Your task to perform on an android device: View the shopping cart on costco.com. Search for macbook on costco.com, select the first entry, and add it to the cart. Image 0: 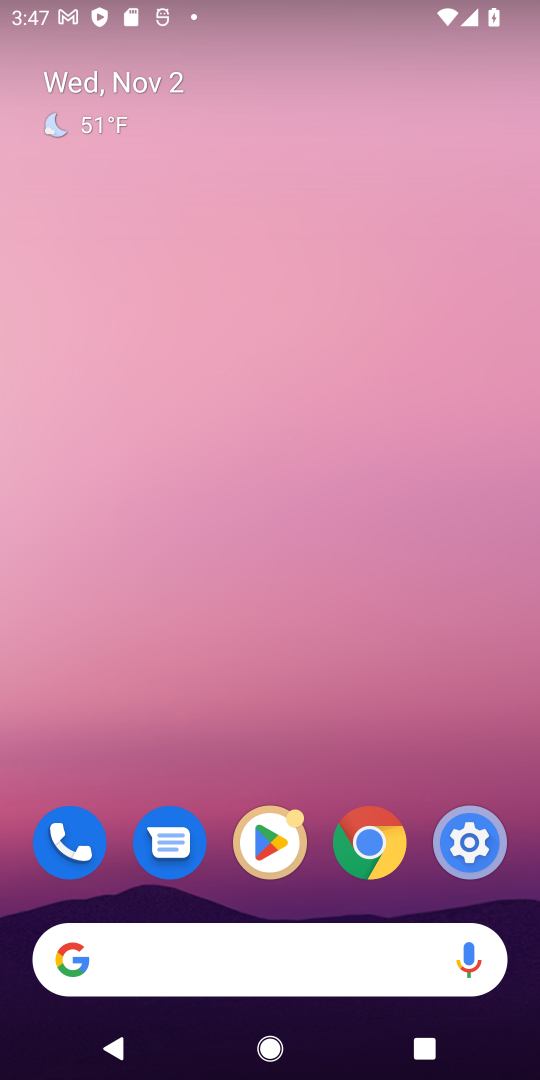
Step 0: click (261, 951)
Your task to perform on an android device: View the shopping cart on costco.com. Search for macbook on costco.com, select the first entry, and add it to the cart. Image 1: 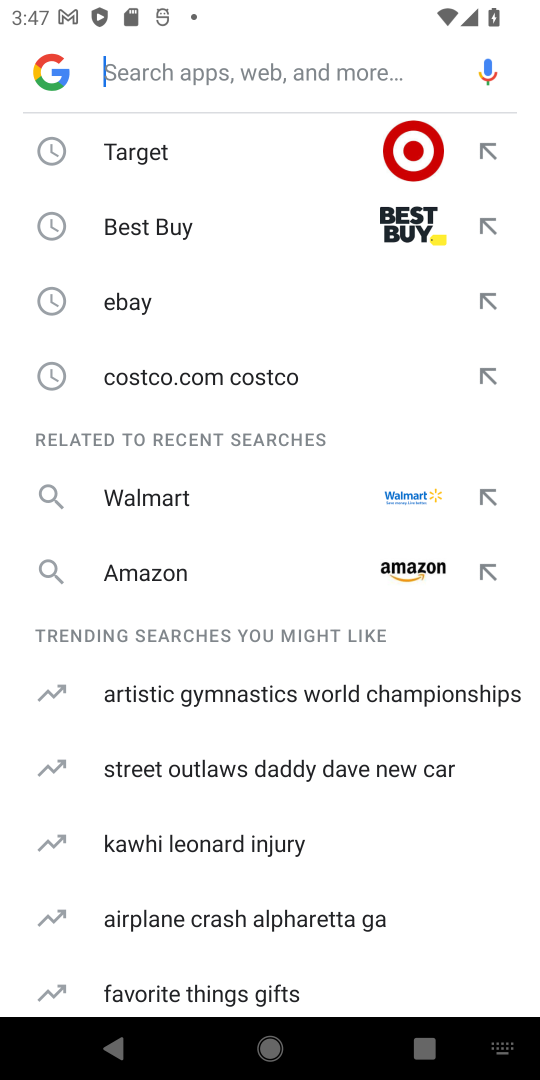
Step 1: click (227, 374)
Your task to perform on an android device: View the shopping cart on costco.com. Search for macbook on costco.com, select the first entry, and add it to the cart. Image 2: 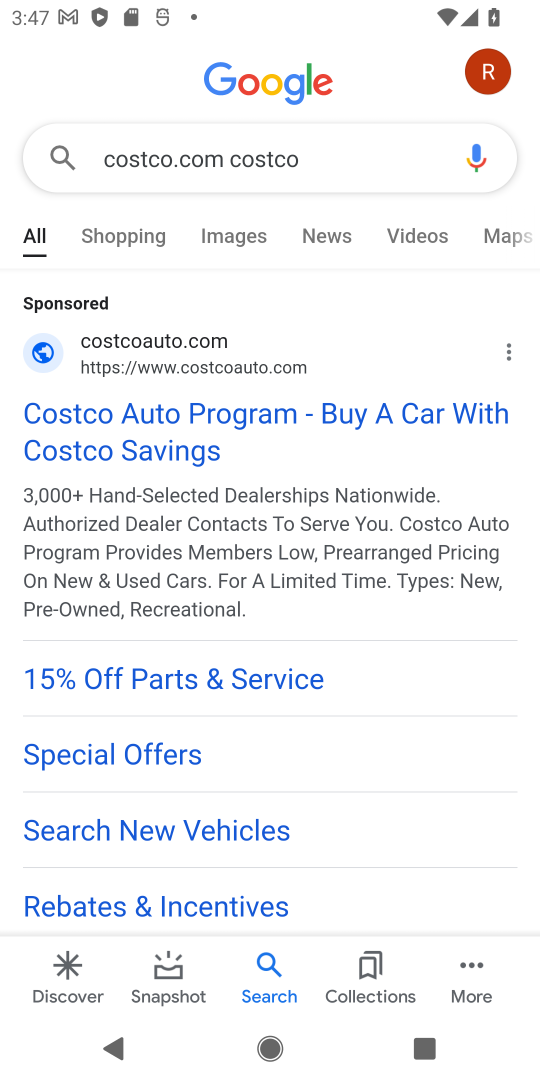
Step 2: drag from (329, 854) to (261, 399)
Your task to perform on an android device: View the shopping cart on costco.com. Search for macbook on costco.com, select the first entry, and add it to the cart. Image 3: 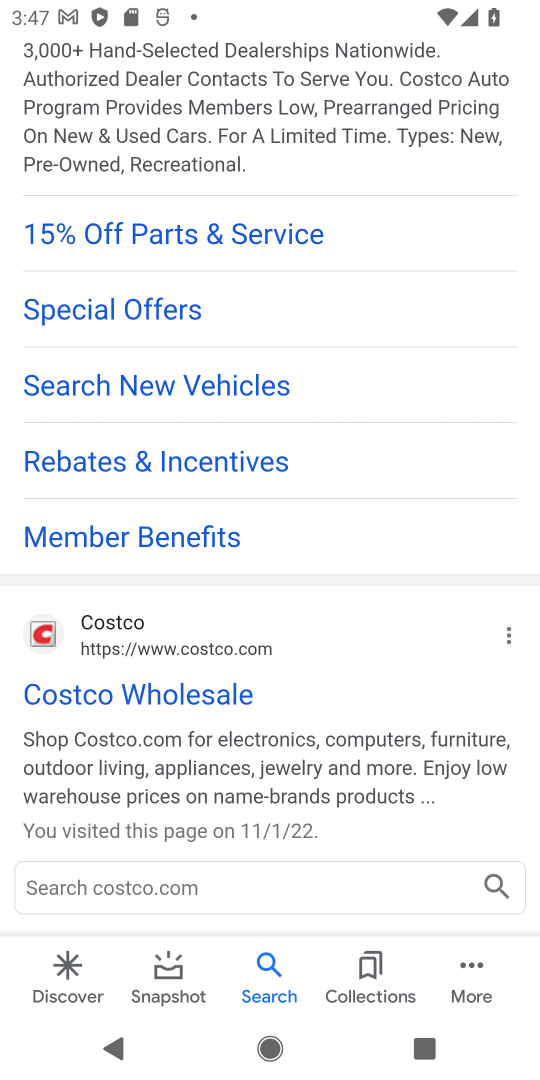
Step 3: click (139, 682)
Your task to perform on an android device: View the shopping cart on costco.com. Search for macbook on costco.com, select the first entry, and add it to the cart. Image 4: 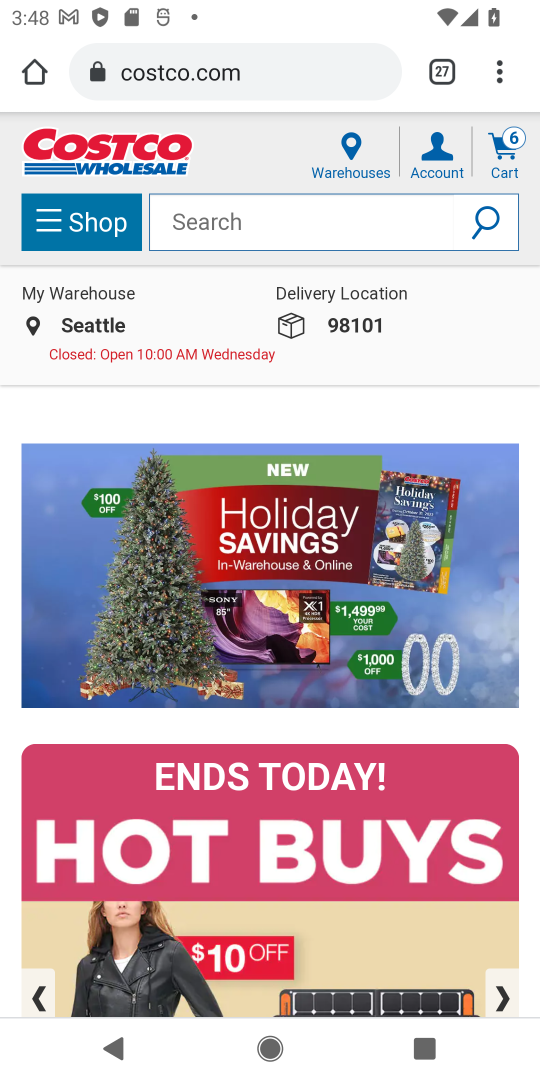
Step 4: click (294, 223)
Your task to perform on an android device: View the shopping cart on costco.com. Search for macbook on costco.com, select the first entry, and add it to the cart. Image 5: 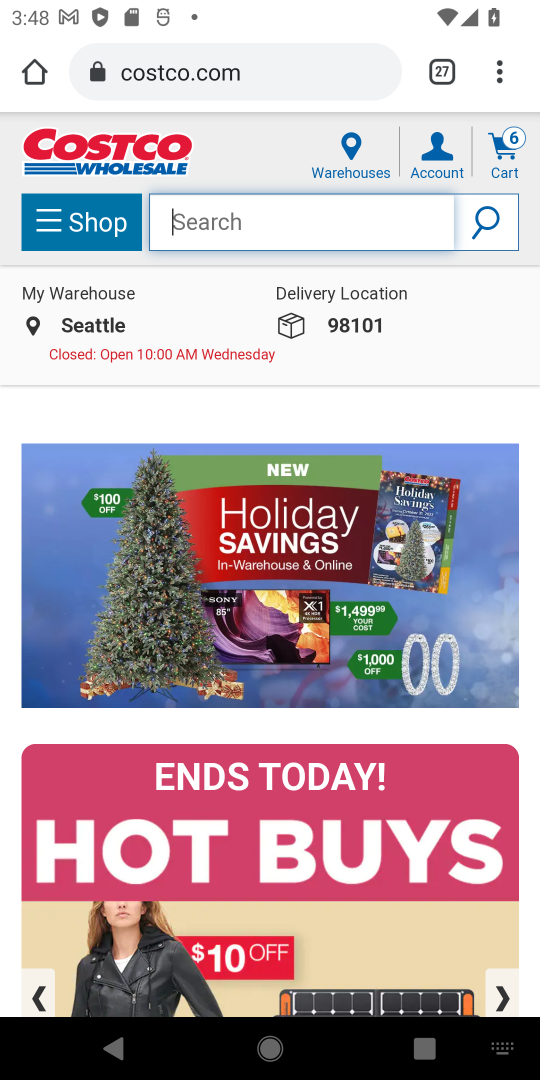
Step 5: type "macbook"
Your task to perform on an android device: View the shopping cart on costco.com. Search for macbook on costco.com, select the first entry, and add it to the cart. Image 6: 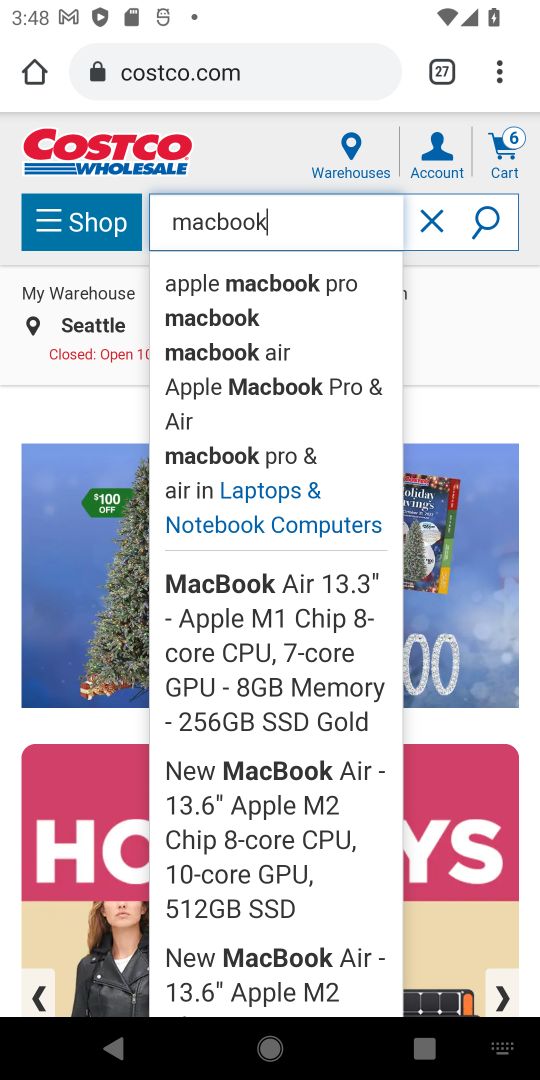
Step 6: click (481, 211)
Your task to perform on an android device: View the shopping cart on costco.com. Search for macbook on costco.com, select the first entry, and add it to the cart. Image 7: 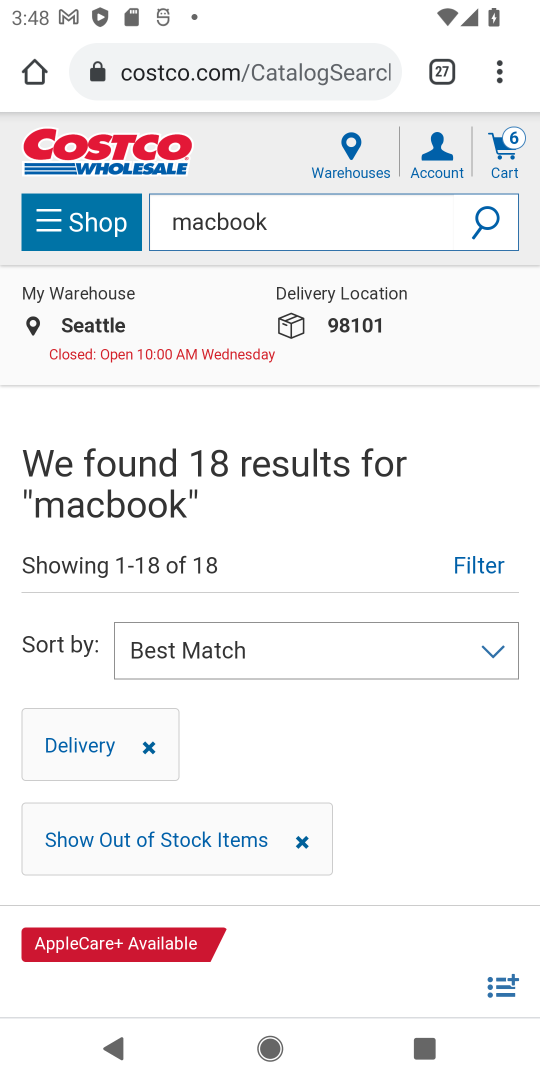
Step 7: drag from (456, 479) to (390, 203)
Your task to perform on an android device: View the shopping cart on costco.com. Search for macbook on costco.com, select the first entry, and add it to the cart. Image 8: 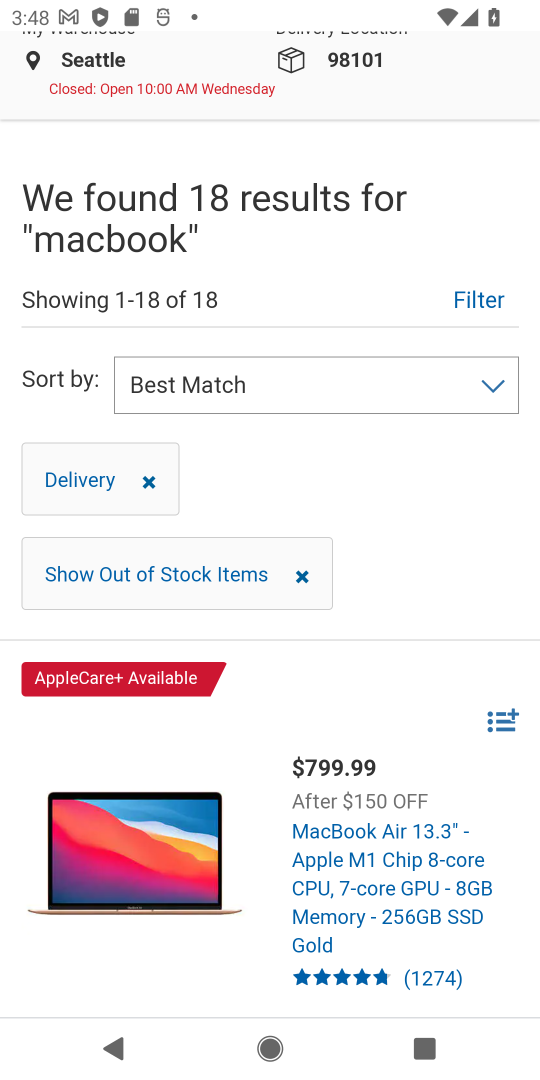
Step 8: drag from (406, 599) to (376, 221)
Your task to perform on an android device: View the shopping cart on costco.com. Search for macbook on costco.com, select the first entry, and add it to the cart. Image 9: 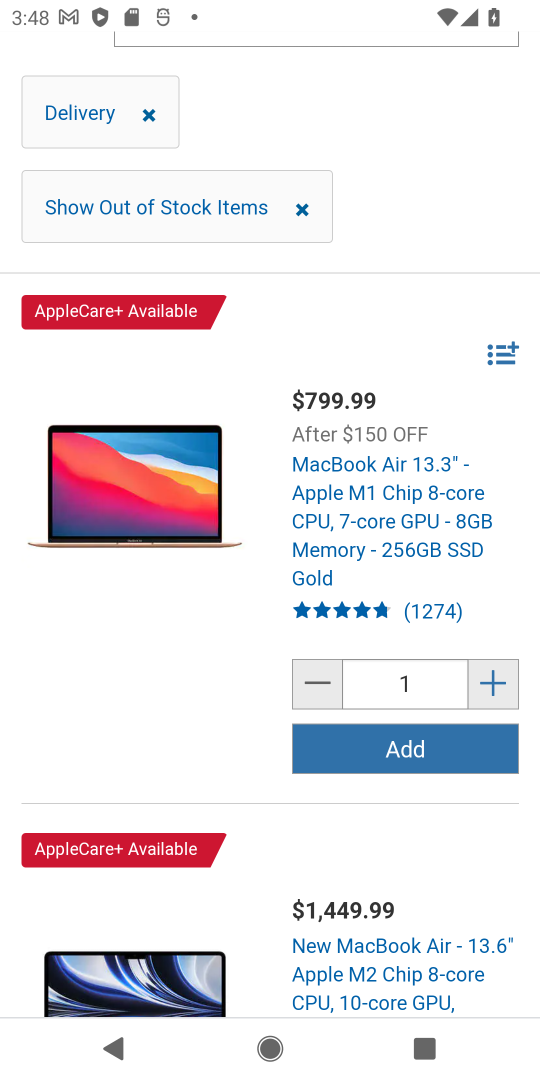
Step 9: click (416, 752)
Your task to perform on an android device: View the shopping cart on costco.com. Search for macbook on costco.com, select the first entry, and add it to the cart. Image 10: 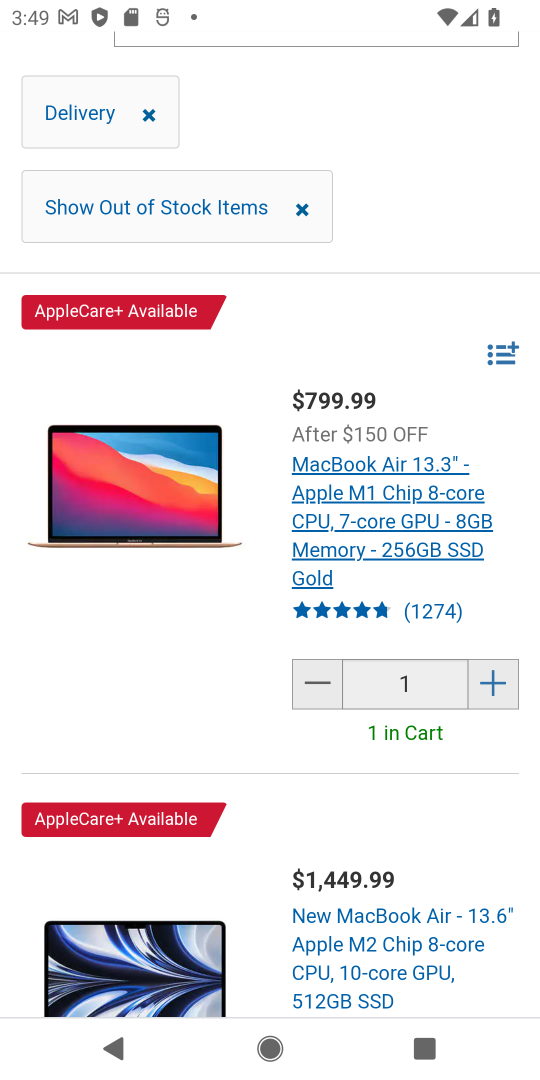
Step 10: task complete